Your task to perform on an android device: change the clock display to show seconds Image 0: 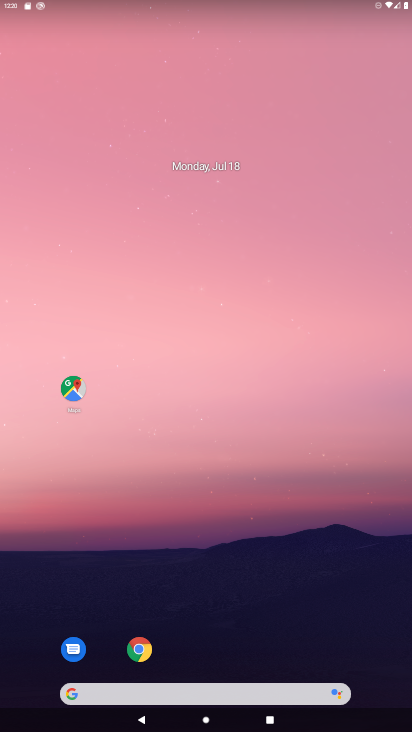
Step 0: drag from (198, 635) to (253, 138)
Your task to perform on an android device: change the clock display to show seconds Image 1: 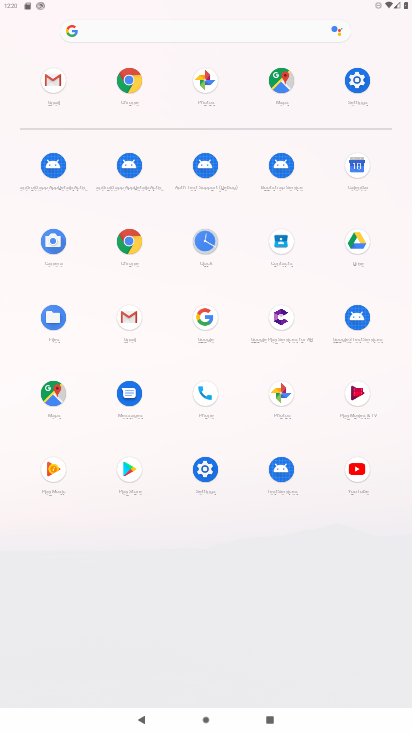
Step 1: click (209, 242)
Your task to perform on an android device: change the clock display to show seconds Image 2: 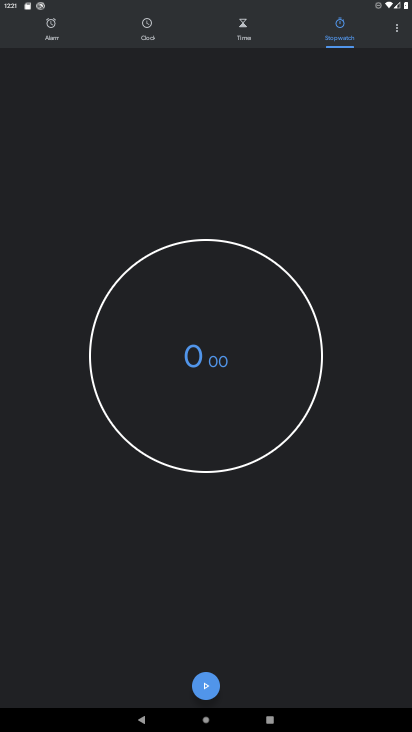
Step 2: click (402, 24)
Your task to perform on an android device: change the clock display to show seconds Image 3: 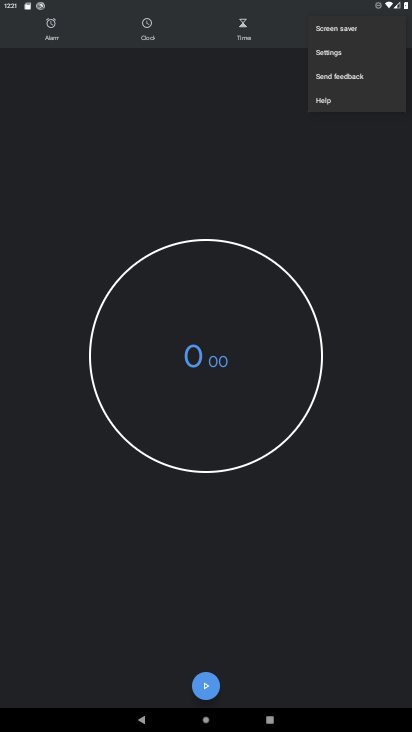
Step 3: click (343, 57)
Your task to perform on an android device: change the clock display to show seconds Image 4: 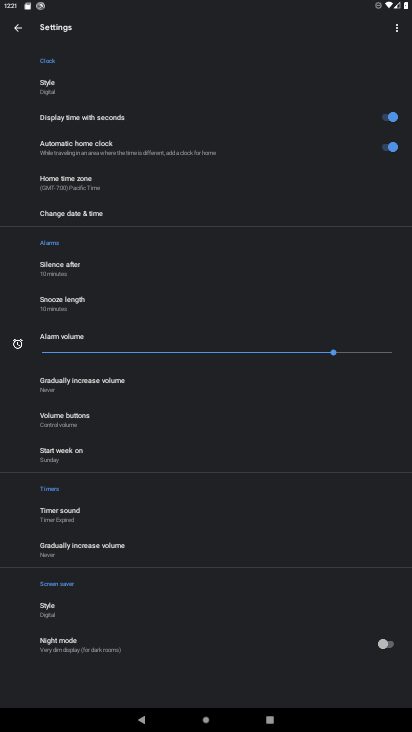
Step 4: task complete